Your task to perform on an android device: Open the calendar and show me this week's events? Image 0: 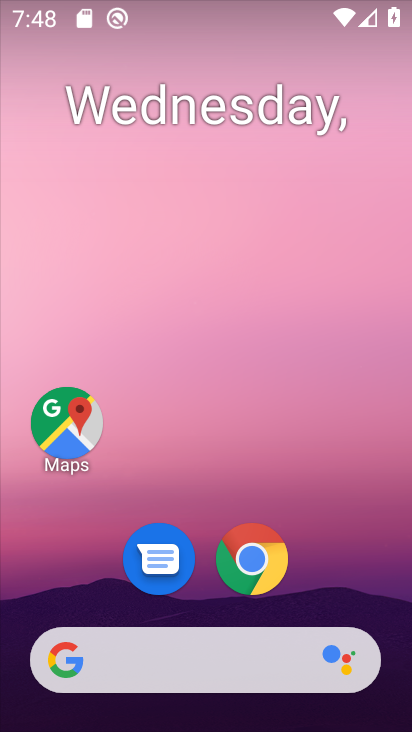
Step 0: drag from (338, 455) to (315, 242)
Your task to perform on an android device: Open the calendar and show me this week's events? Image 1: 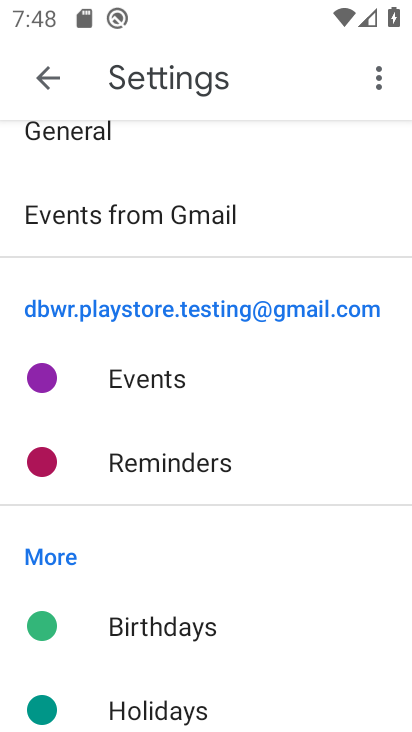
Step 1: press home button
Your task to perform on an android device: Open the calendar and show me this week's events? Image 2: 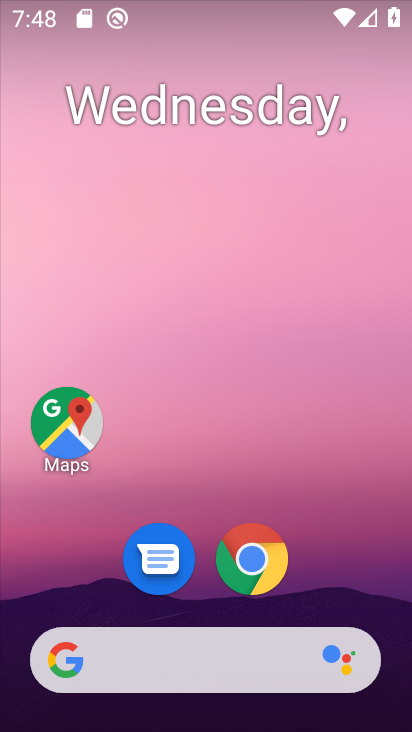
Step 2: drag from (358, 529) to (358, 242)
Your task to perform on an android device: Open the calendar and show me this week's events? Image 3: 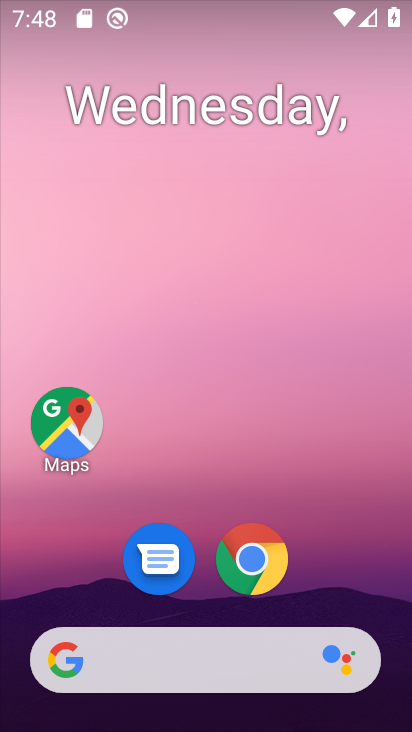
Step 3: drag from (381, 587) to (362, 153)
Your task to perform on an android device: Open the calendar and show me this week's events? Image 4: 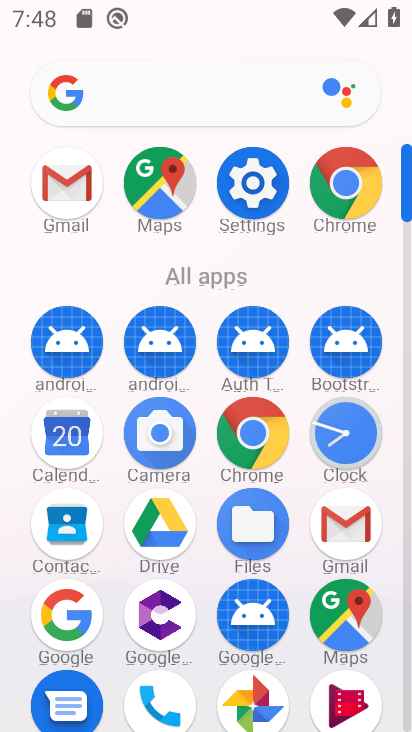
Step 4: click (54, 442)
Your task to perform on an android device: Open the calendar and show me this week's events? Image 5: 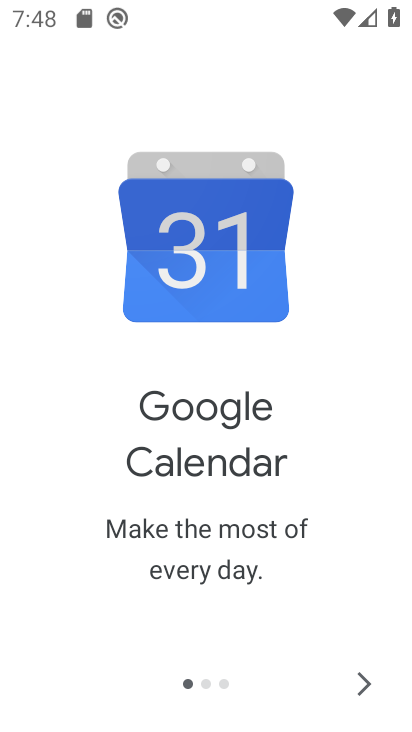
Step 5: click (360, 689)
Your task to perform on an android device: Open the calendar and show me this week's events? Image 6: 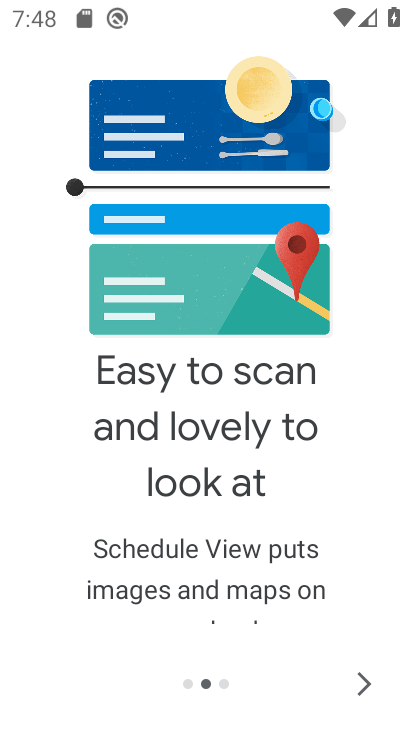
Step 6: click (362, 690)
Your task to perform on an android device: Open the calendar and show me this week's events? Image 7: 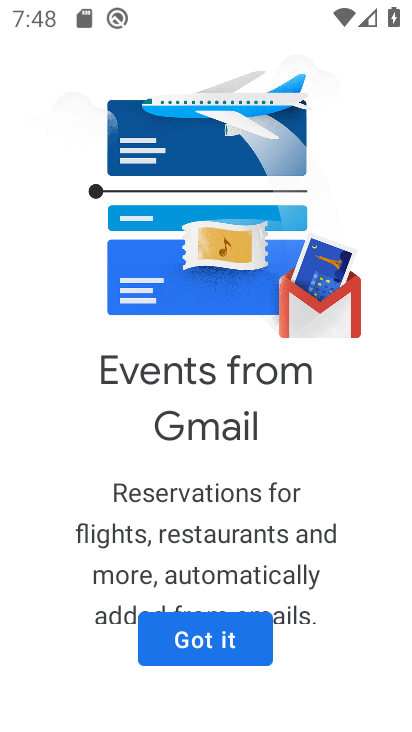
Step 7: click (213, 641)
Your task to perform on an android device: Open the calendar and show me this week's events? Image 8: 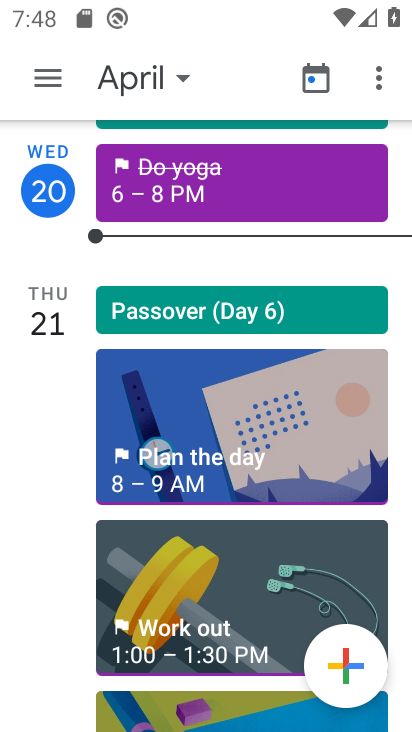
Step 8: click (139, 72)
Your task to perform on an android device: Open the calendar and show me this week's events? Image 9: 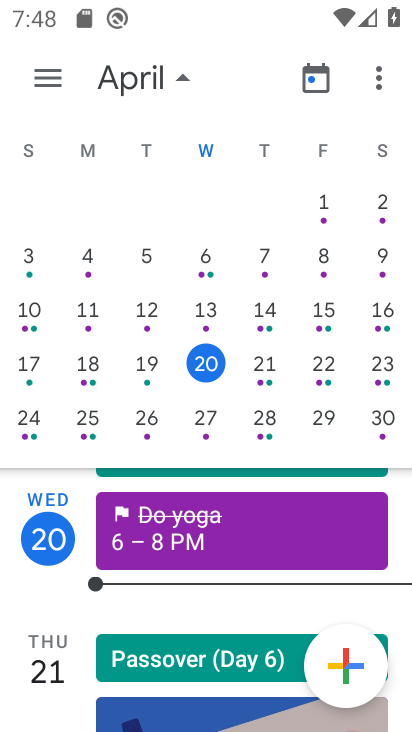
Step 9: task complete